Your task to perform on an android device: open app "VLC for Android" (install if not already installed) and go to login screen Image 0: 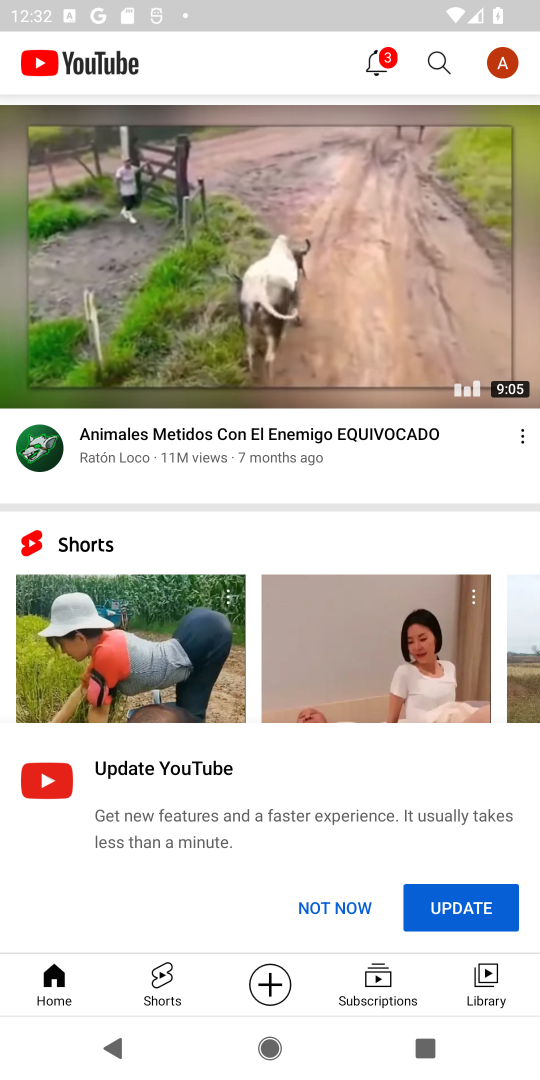
Step 0: press home button
Your task to perform on an android device: open app "VLC for Android" (install if not already installed) and go to login screen Image 1: 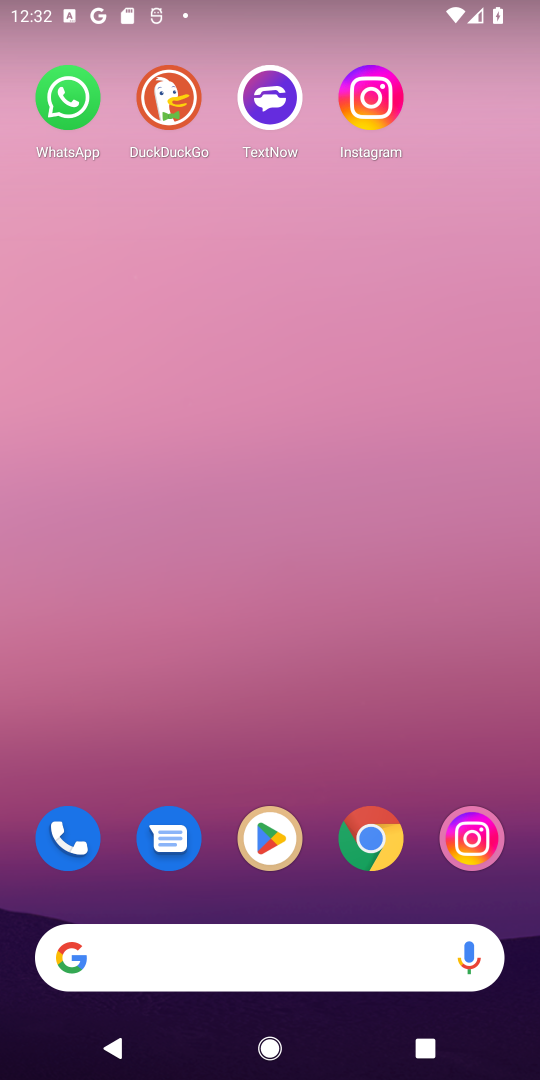
Step 1: click (275, 818)
Your task to perform on an android device: open app "VLC for Android" (install if not already installed) and go to login screen Image 2: 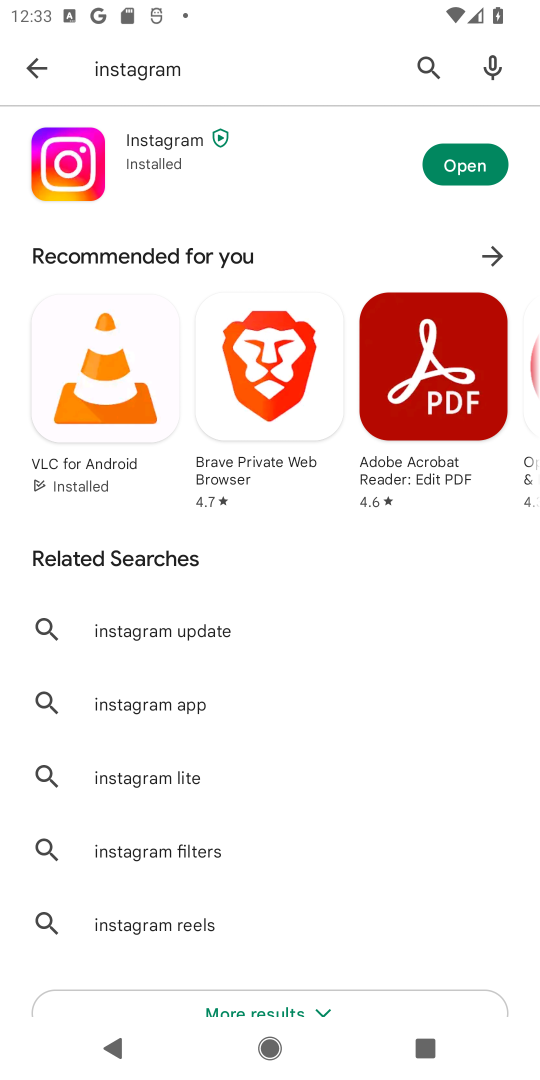
Step 2: click (425, 56)
Your task to perform on an android device: open app "VLC for Android" (install if not already installed) and go to login screen Image 3: 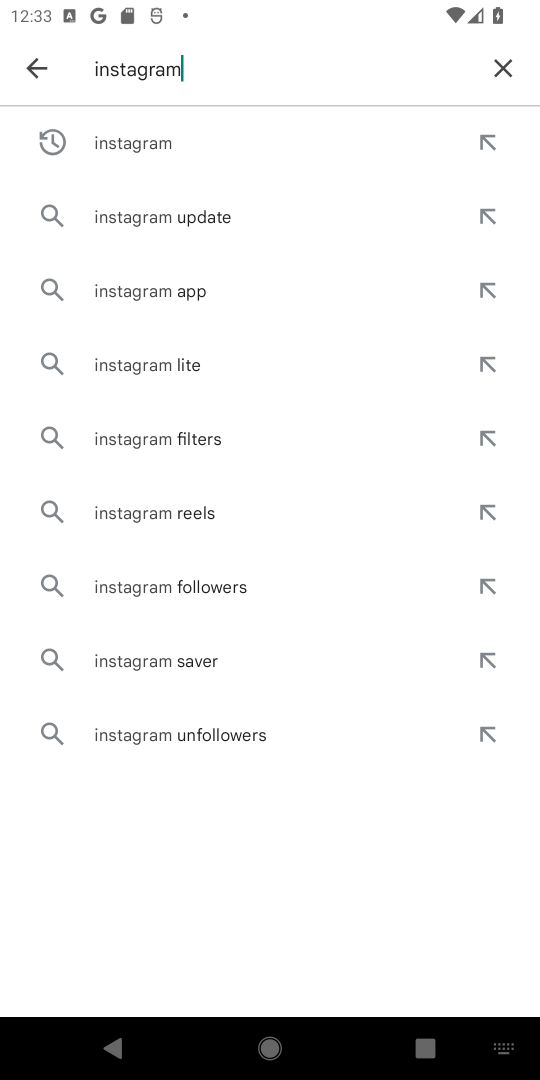
Step 3: click (493, 66)
Your task to perform on an android device: open app "VLC for Android" (install if not already installed) and go to login screen Image 4: 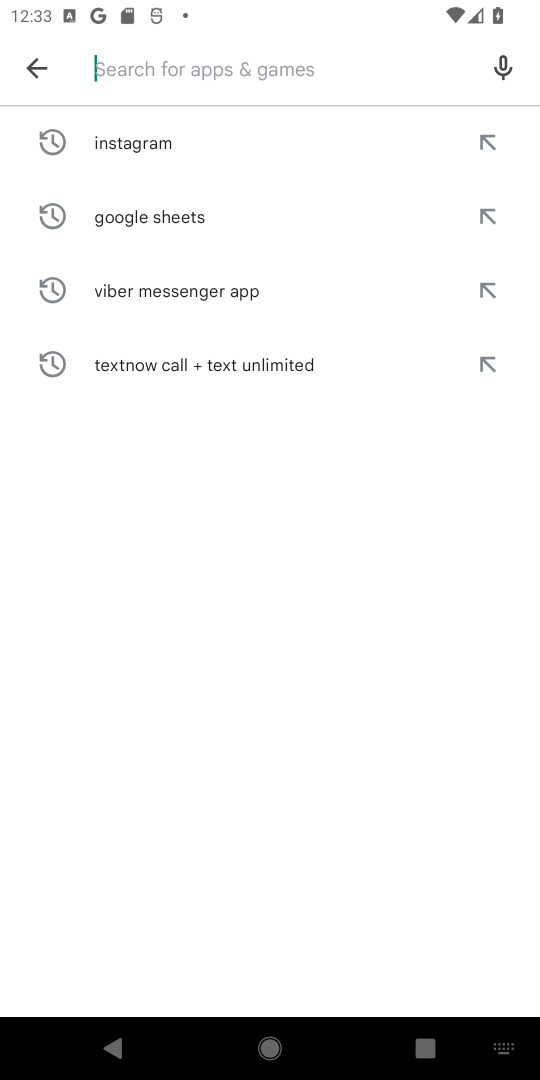
Step 4: type "VLC for Android"
Your task to perform on an android device: open app "VLC for Android" (install if not already installed) and go to login screen Image 5: 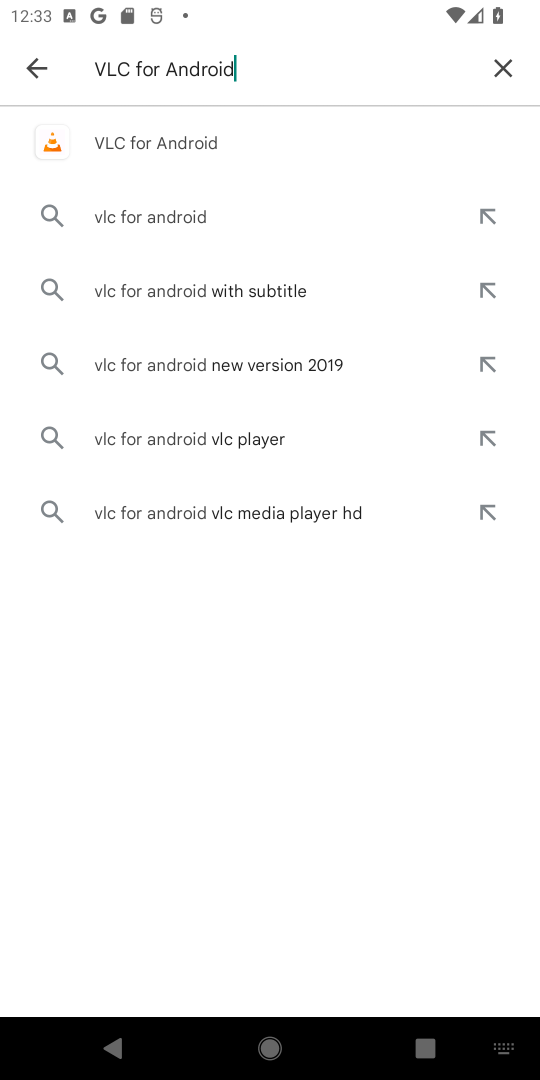
Step 5: click (180, 156)
Your task to perform on an android device: open app "VLC for Android" (install if not already installed) and go to login screen Image 6: 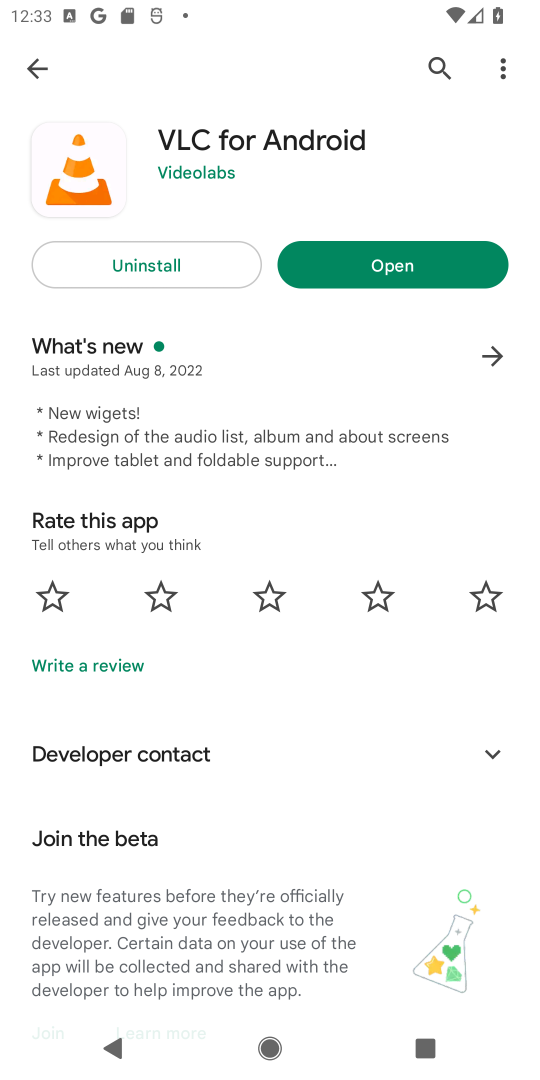
Step 6: click (340, 264)
Your task to perform on an android device: open app "VLC for Android" (install if not already installed) and go to login screen Image 7: 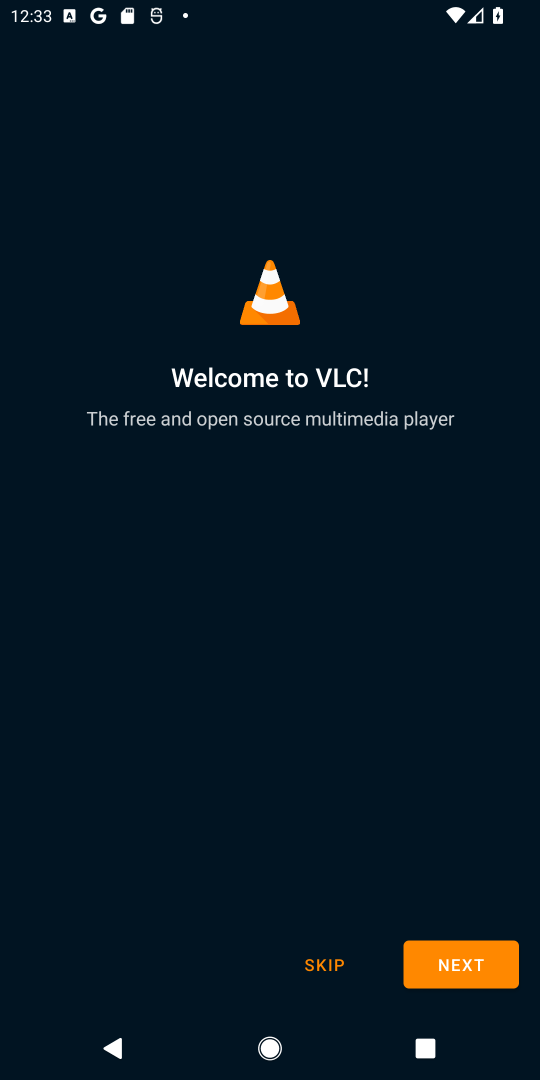
Step 7: task complete